Your task to perform on an android device: Open a new Chrome private window Image 0: 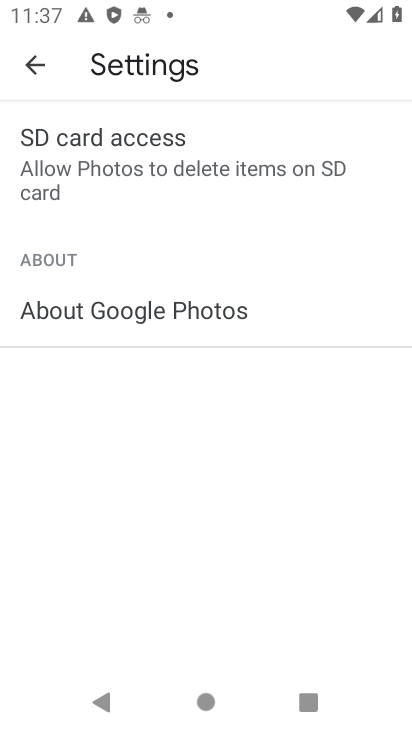
Step 0: press home button
Your task to perform on an android device: Open a new Chrome private window Image 1: 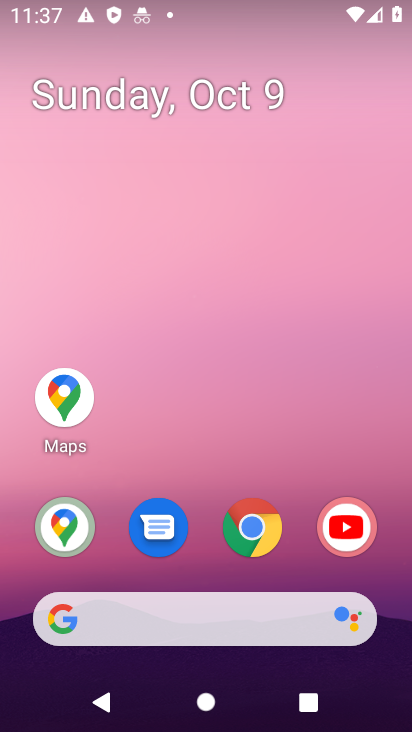
Step 1: click (244, 524)
Your task to perform on an android device: Open a new Chrome private window Image 2: 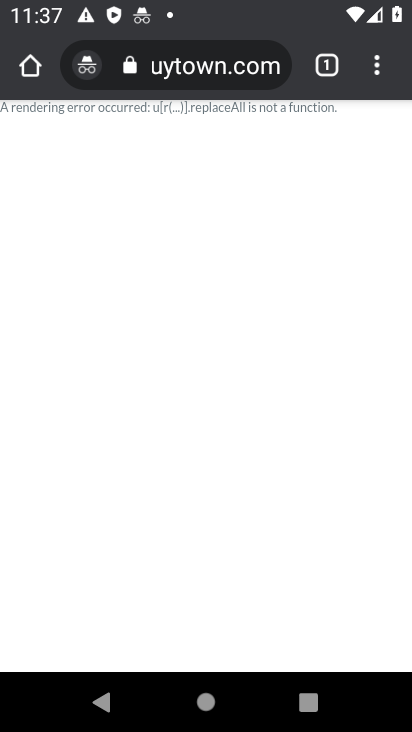
Step 2: click (374, 70)
Your task to perform on an android device: Open a new Chrome private window Image 3: 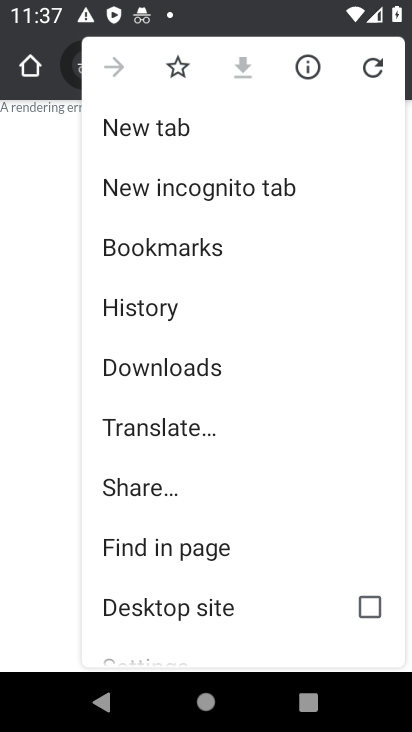
Step 3: click (269, 191)
Your task to perform on an android device: Open a new Chrome private window Image 4: 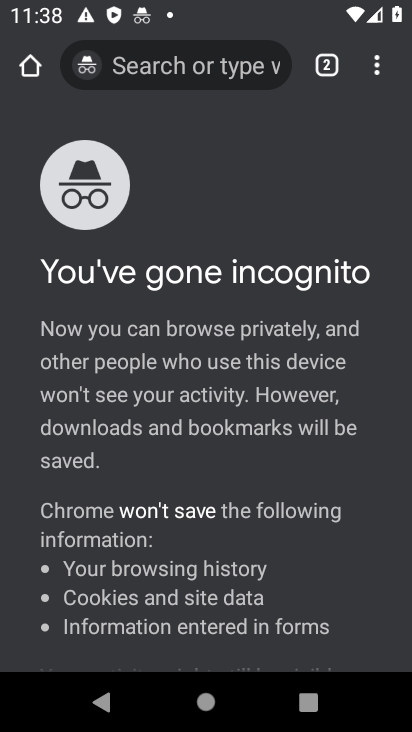
Step 4: task complete